Your task to perform on an android device: add a label to a message in the gmail app Image 0: 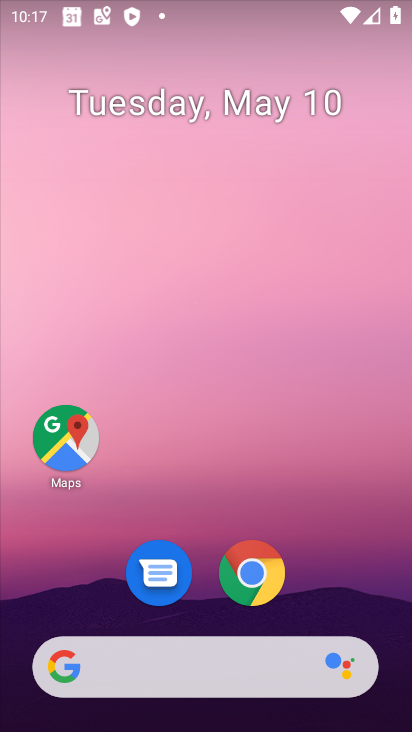
Step 0: drag from (346, 574) to (217, 37)
Your task to perform on an android device: add a label to a message in the gmail app Image 1: 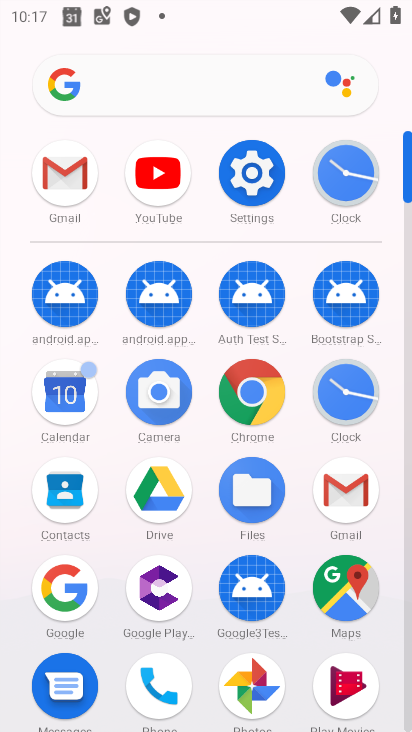
Step 1: click (69, 164)
Your task to perform on an android device: add a label to a message in the gmail app Image 2: 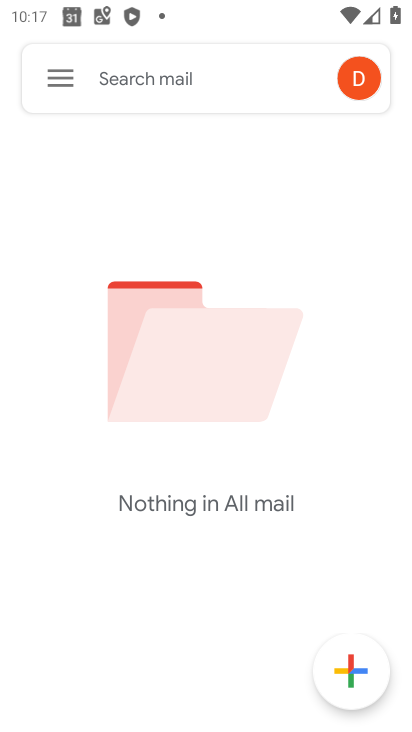
Step 2: task complete